Your task to perform on an android device: Do I have any events today? Image 0: 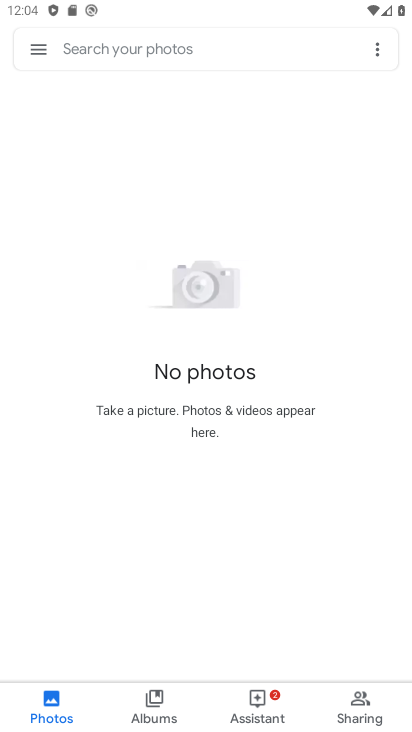
Step 0: press home button
Your task to perform on an android device: Do I have any events today? Image 1: 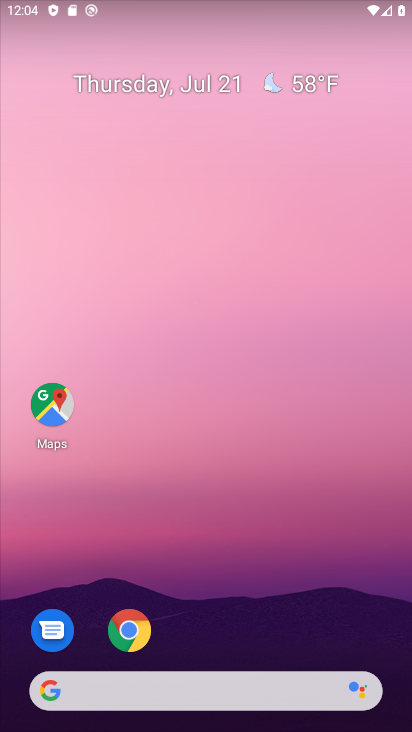
Step 1: drag from (181, 692) to (141, 168)
Your task to perform on an android device: Do I have any events today? Image 2: 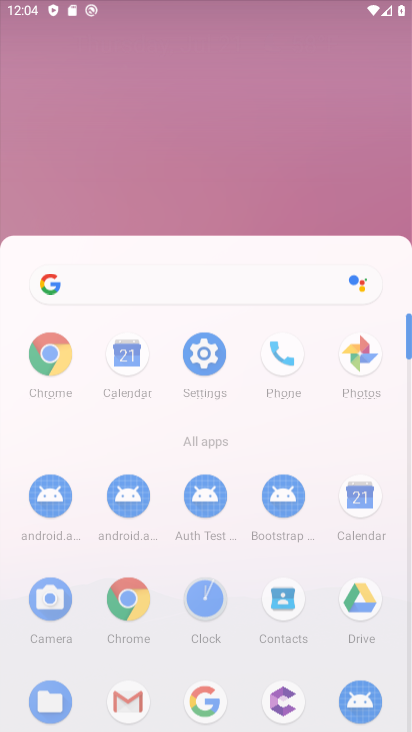
Step 2: click (141, 168)
Your task to perform on an android device: Do I have any events today? Image 3: 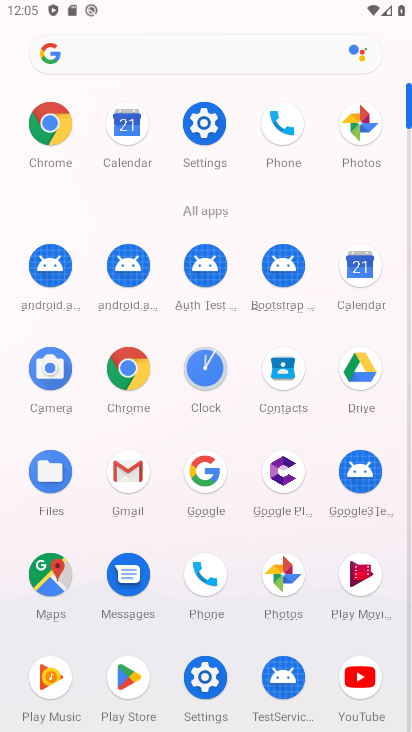
Step 3: click (350, 281)
Your task to perform on an android device: Do I have any events today? Image 4: 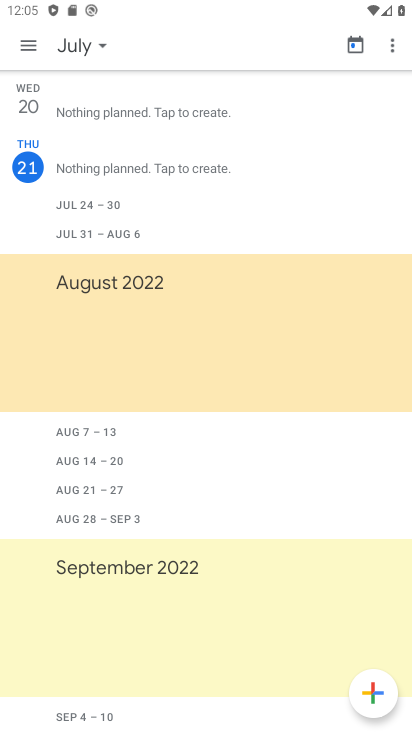
Step 4: click (23, 171)
Your task to perform on an android device: Do I have any events today? Image 5: 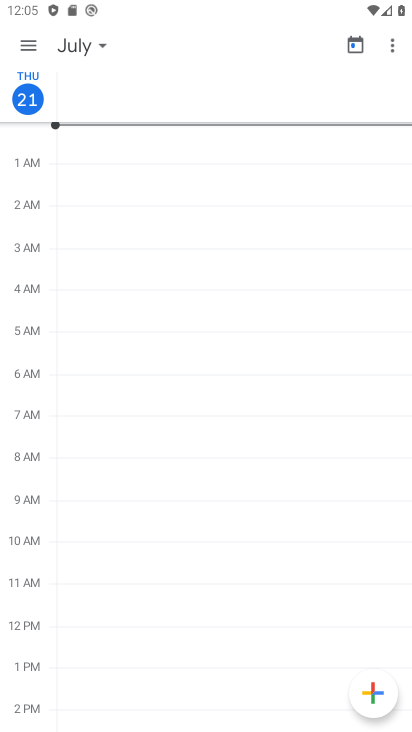
Step 5: task complete